Your task to perform on an android device: check the backup settings in the google photos Image 0: 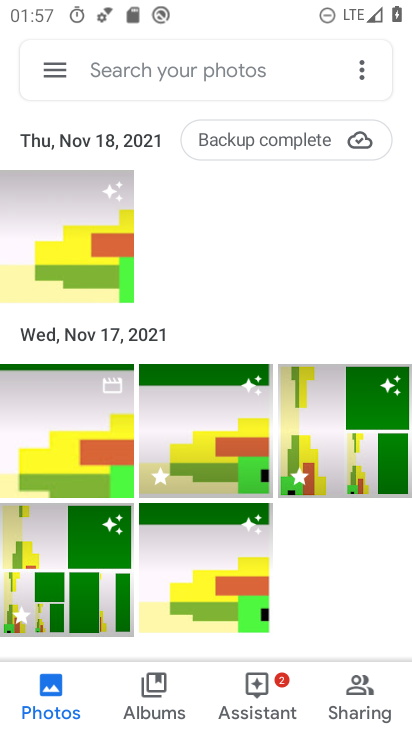
Step 0: press home button
Your task to perform on an android device: check the backup settings in the google photos Image 1: 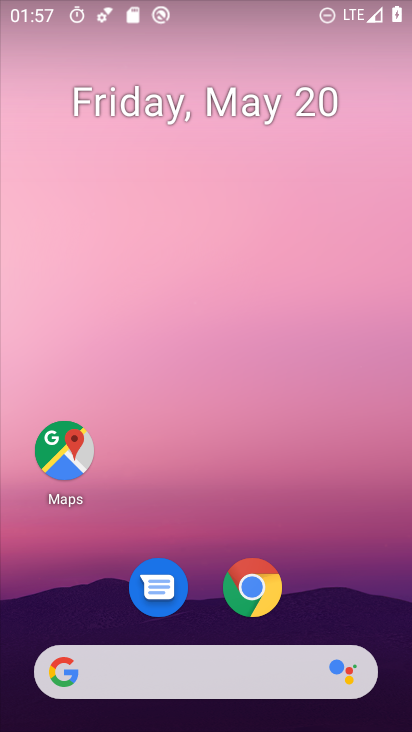
Step 1: drag from (368, 610) to (368, 203)
Your task to perform on an android device: check the backup settings in the google photos Image 2: 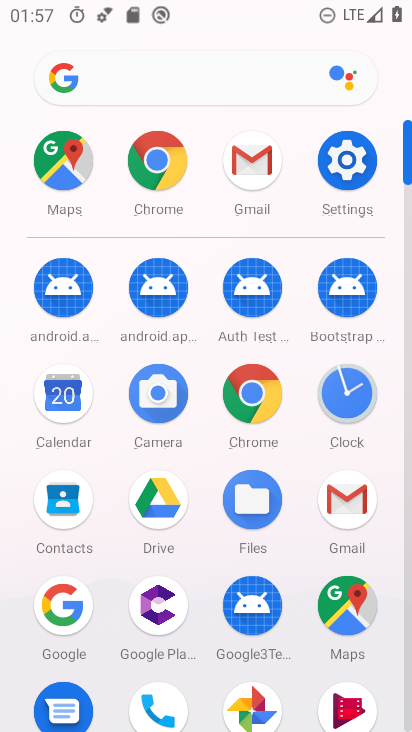
Step 2: drag from (393, 650) to (385, 392)
Your task to perform on an android device: check the backup settings in the google photos Image 3: 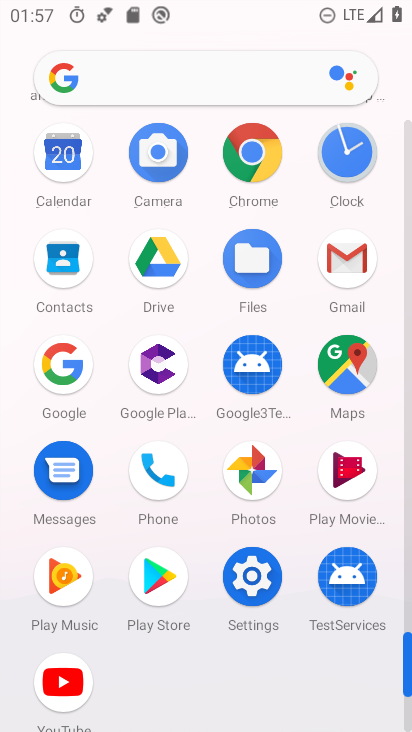
Step 3: click (248, 486)
Your task to perform on an android device: check the backup settings in the google photos Image 4: 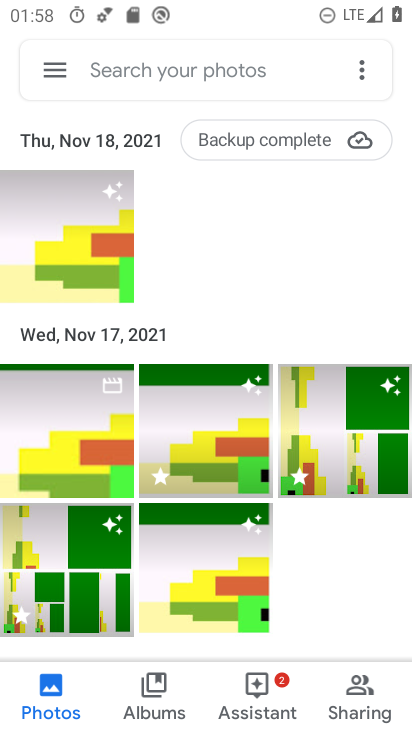
Step 4: click (67, 73)
Your task to perform on an android device: check the backup settings in the google photos Image 5: 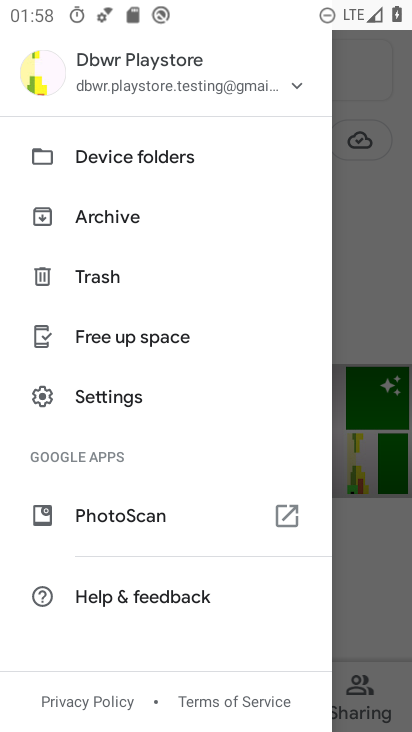
Step 5: click (140, 409)
Your task to perform on an android device: check the backup settings in the google photos Image 6: 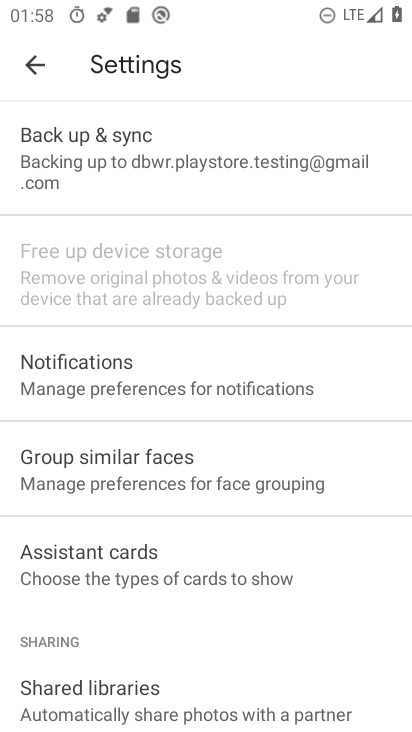
Step 6: click (294, 172)
Your task to perform on an android device: check the backup settings in the google photos Image 7: 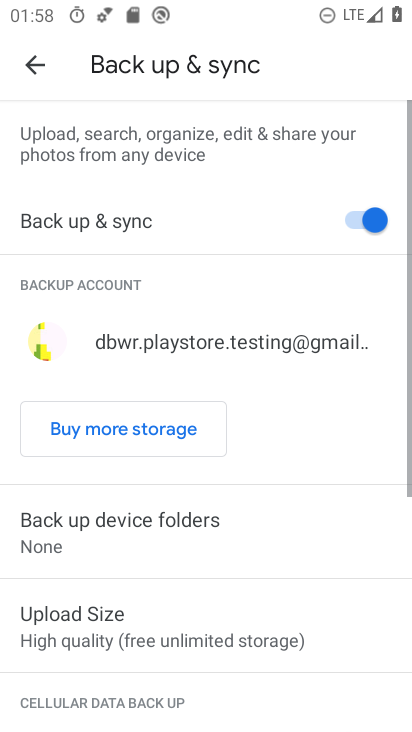
Step 7: task complete